Your task to perform on an android device: Show me popular videos on Youtube Image 0: 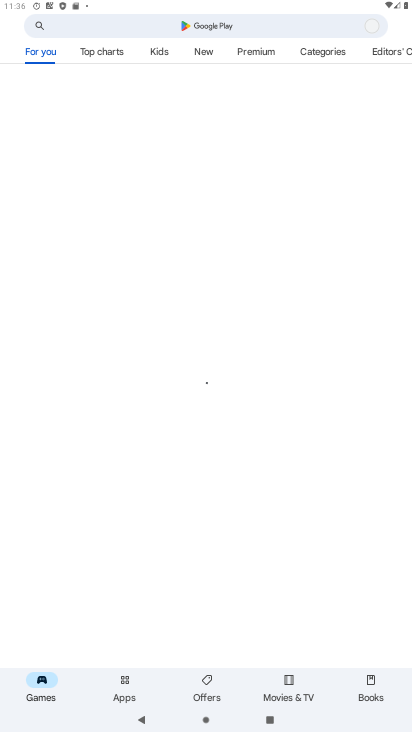
Step 0: press back button
Your task to perform on an android device: Show me popular videos on Youtube Image 1: 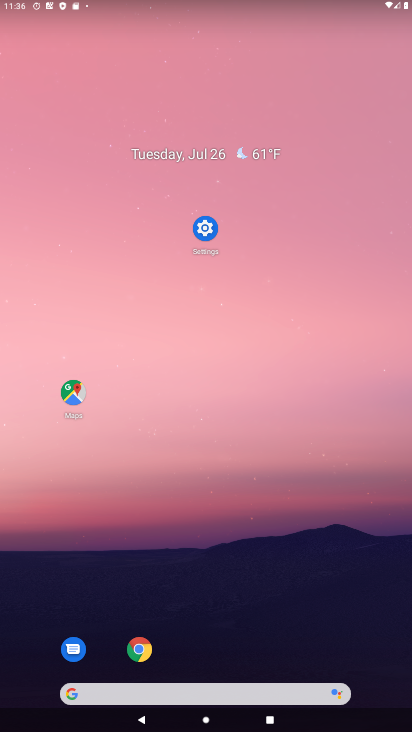
Step 1: drag from (171, 535) to (169, 4)
Your task to perform on an android device: Show me popular videos on Youtube Image 2: 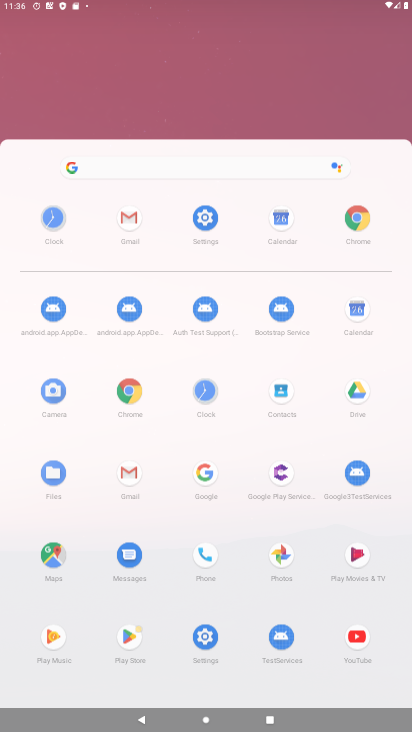
Step 2: drag from (235, 511) to (235, 148)
Your task to perform on an android device: Show me popular videos on Youtube Image 3: 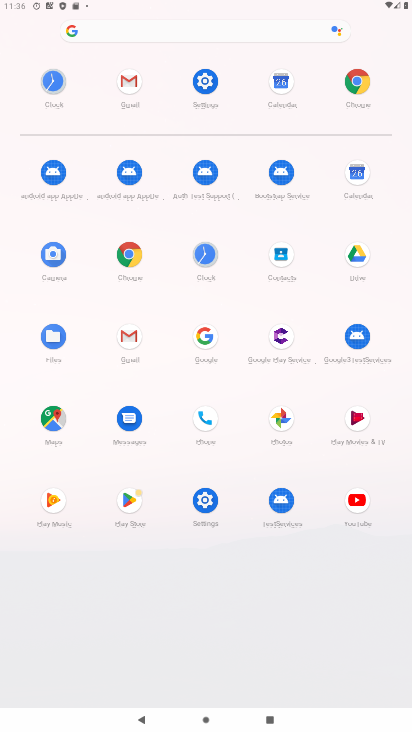
Step 3: drag from (248, 510) to (238, 123)
Your task to perform on an android device: Show me popular videos on Youtube Image 4: 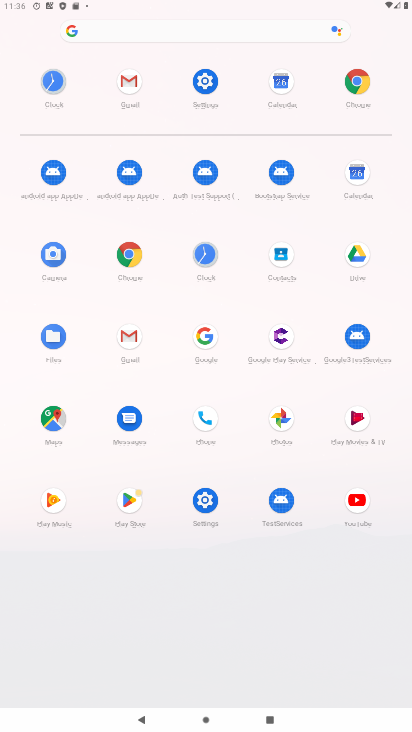
Step 4: click (343, 503)
Your task to perform on an android device: Show me popular videos on Youtube Image 5: 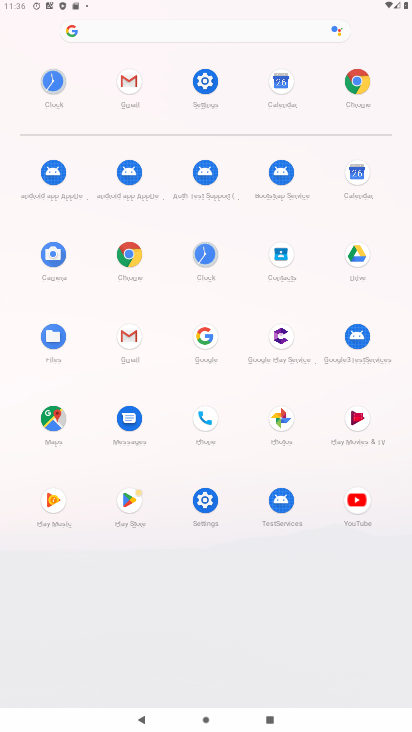
Step 5: click (349, 507)
Your task to perform on an android device: Show me popular videos on Youtube Image 6: 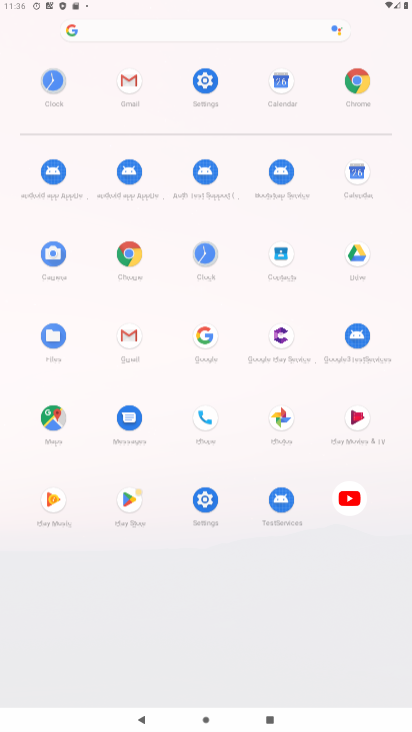
Step 6: click (350, 507)
Your task to perform on an android device: Show me popular videos on Youtube Image 7: 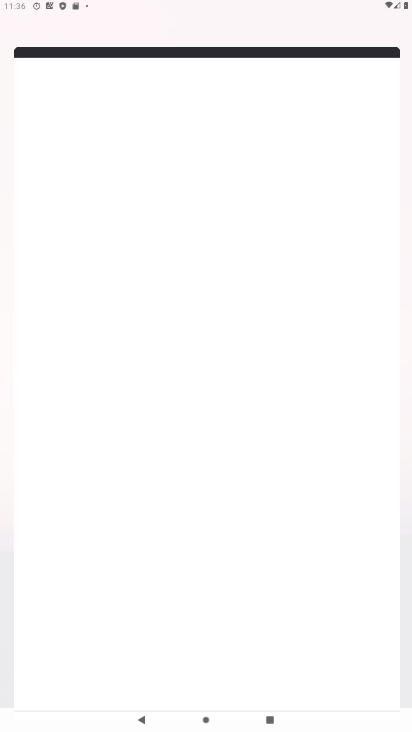
Step 7: click (350, 507)
Your task to perform on an android device: Show me popular videos on Youtube Image 8: 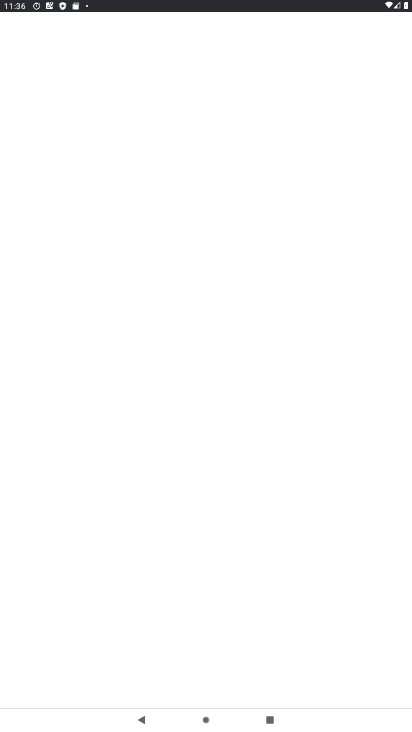
Step 8: click (350, 507)
Your task to perform on an android device: Show me popular videos on Youtube Image 9: 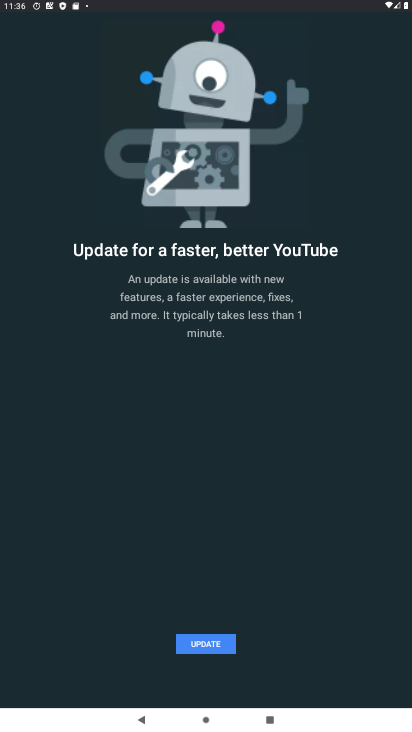
Step 9: click (225, 627)
Your task to perform on an android device: Show me popular videos on Youtube Image 10: 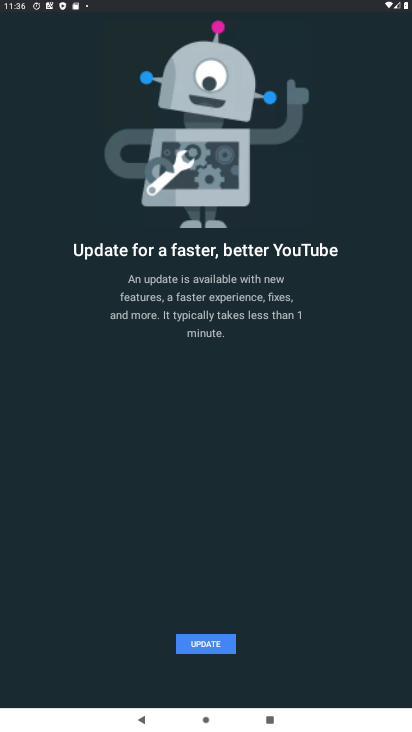
Step 10: click (211, 645)
Your task to perform on an android device: Show me popular videos on Youtube Image 11: 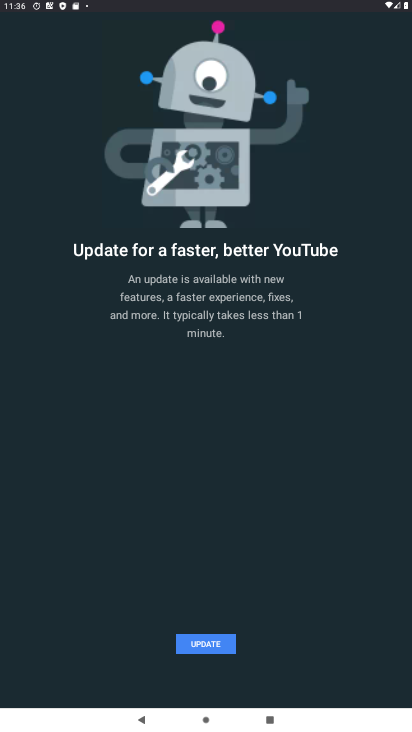
Step 11: click (212, 646)
Your task to perform on an android device: Show me popular videos on Youtube Image 12: 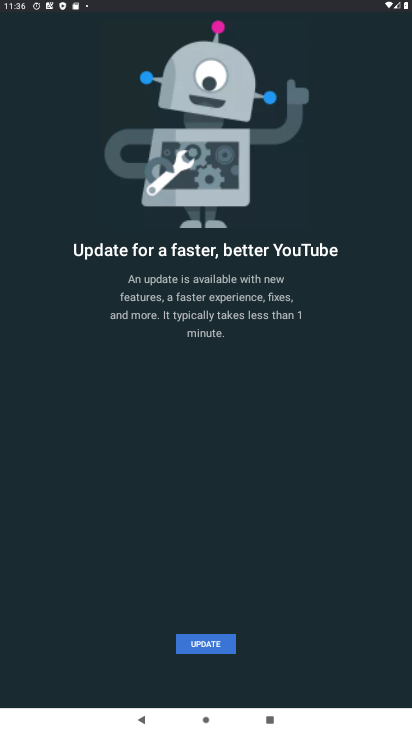
Step 12: click (211, 645)
Your task to perform on an android device: Show me popular videos on Youtube Image 13: 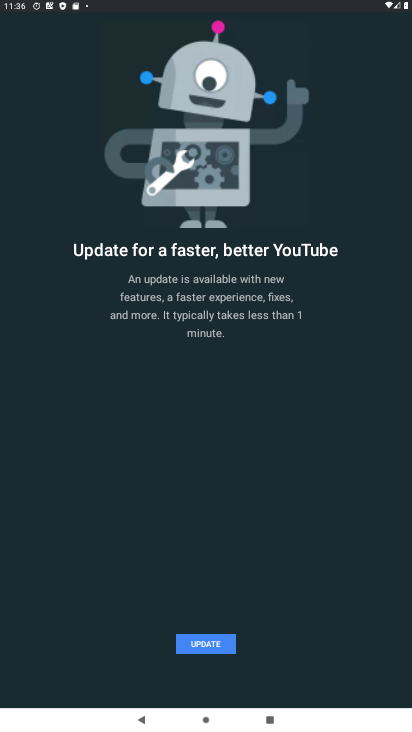
Step 13: click (212, 644)
Your task to perform on an android device: Show me popular videos on Youtube Image 14: 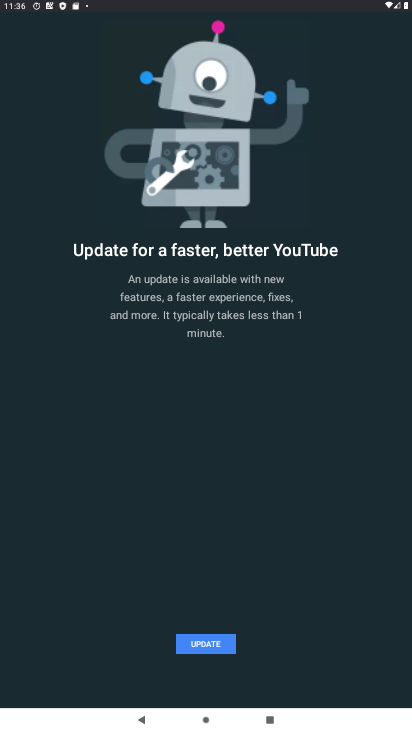
Step 14: click (212, 644)
Your task to perform on an android device: Show me popular videos on Youtube Image 15: 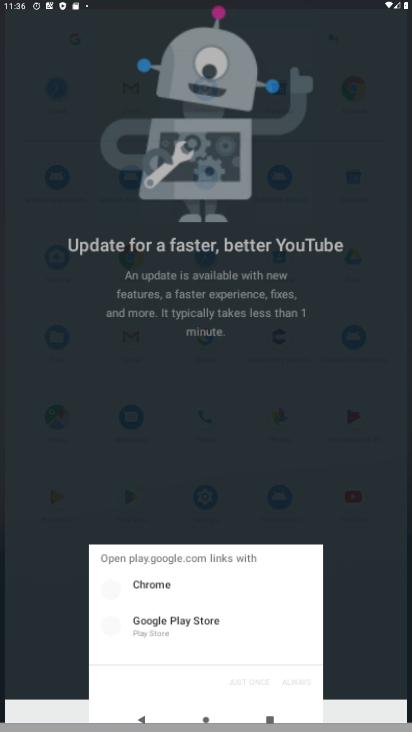
Step 15: click (212, 642)
Your task to perform on an android device: Show me popular videos on Youtube Image 16: 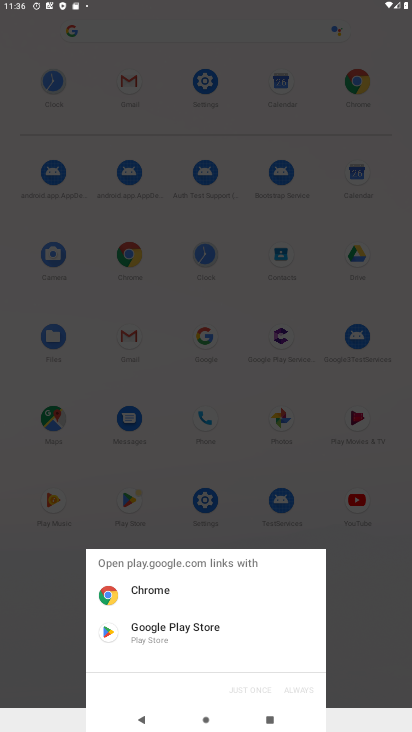
Step 16: click (215, 639)
Your task to perform on an android device: Show me popular videos on Youtube Image 17: 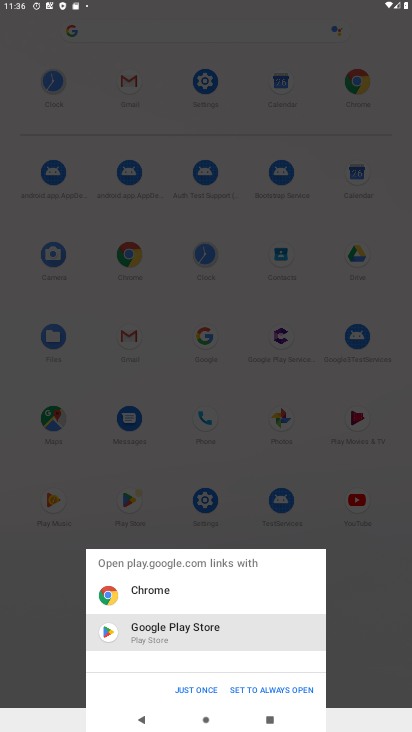
Step 17: click (163, 608)
Your task to perform on an android device: Show me popular videos on Youtube Image 18: 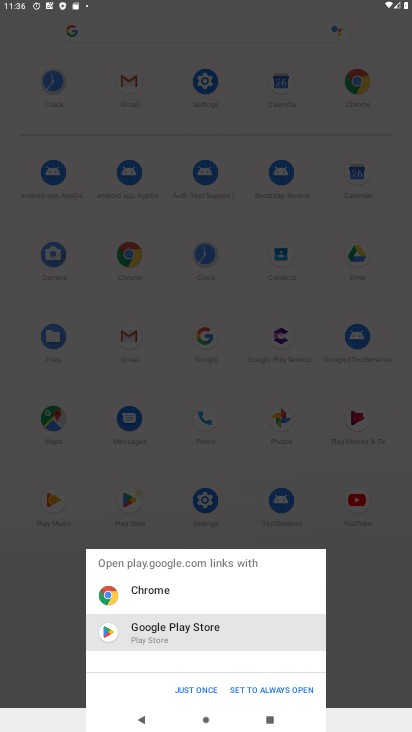
Step 18: click (165, 619)
Your task to perform on an android device: Show me popular videos on Youtube Image 19: 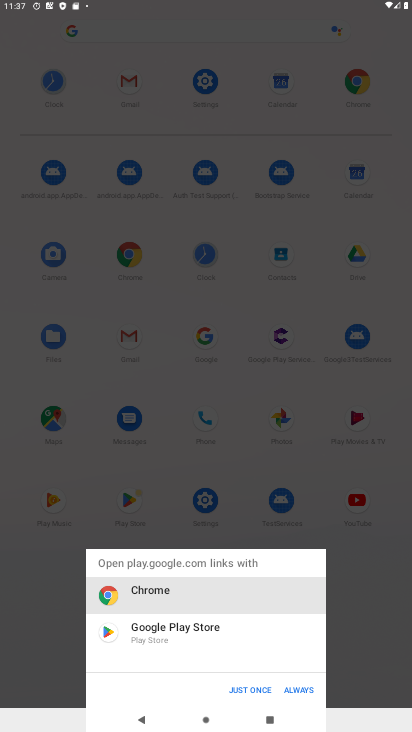
Step 19: click (180, 632)
Your task to perform on an android device: Show me popular videos on Youtube Image 20: 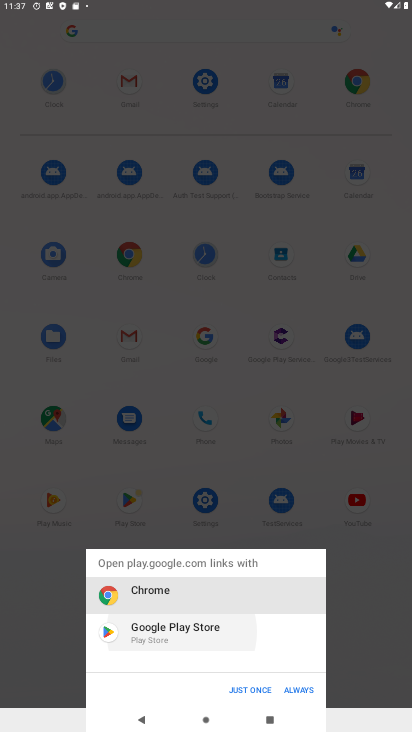
Step 20: click (179, 628)
Your task to perform on an android device: Show me popular videos on Youtube Image 21: 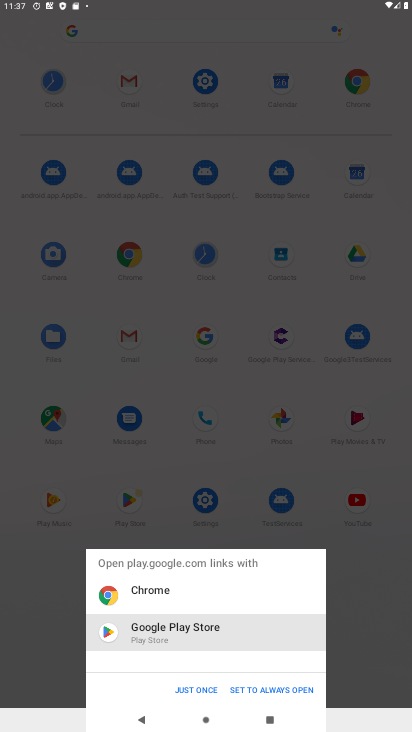
Step 21: click (202, 630)
Your task to perform on an android device: Show me popular videos on Youtube Image 22: 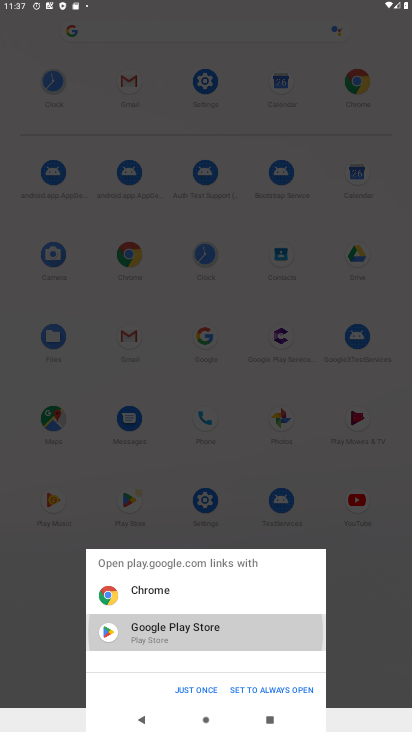
Step 22: click (198, 620)
Your task to perform on an android device: Show me popular videos on Youtube Image 23: 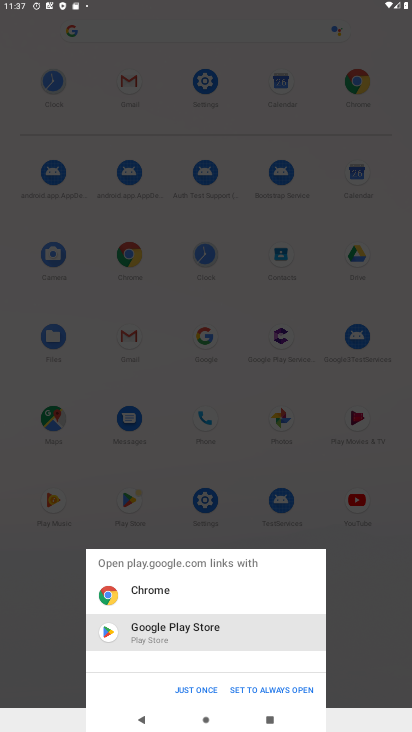
Step 23: click (192, 615)
Your task to perform on an android device: Show me popular videos on Youtube Image 24: 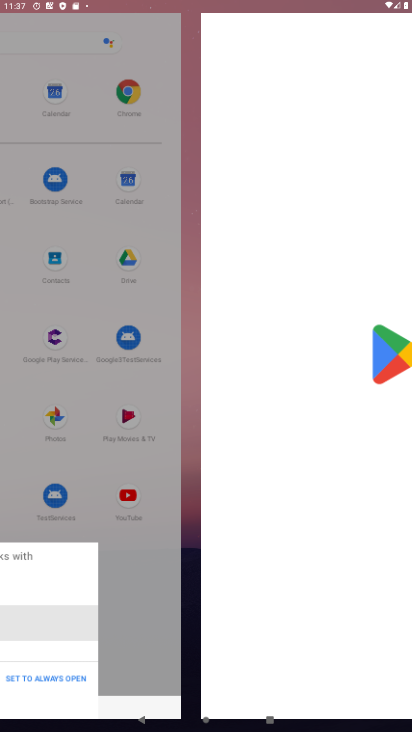
Step 24: click (190, 607)
Your task to perform on an android device: Show me popular videos on Youtube Image 25: 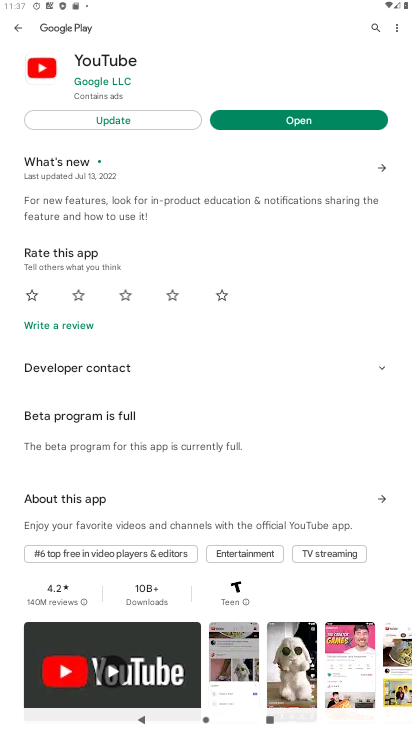
Step 25: click (139, 111)
Your task to perform on an android device: Show me popular videos on Youtube Image 26: 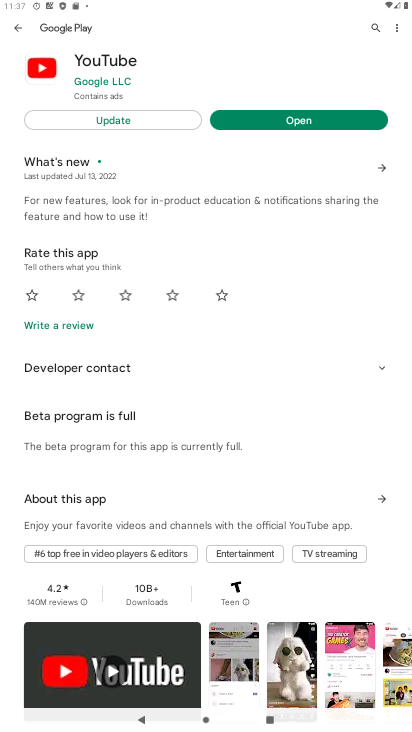
Step 26: click (139, 111)
Your task to perform on an android device: Show me popular videos on Youtube Image 27: 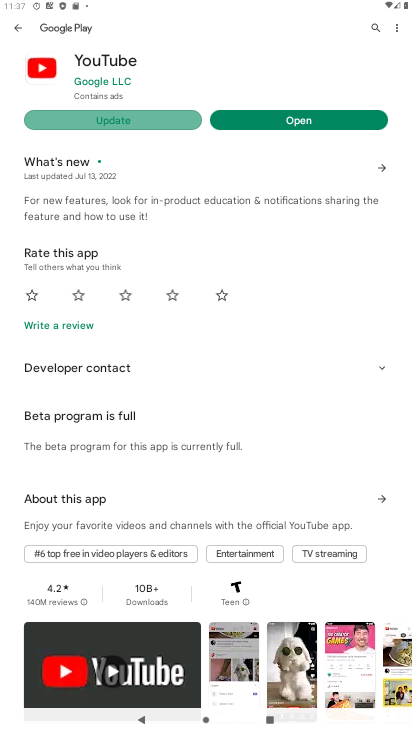
Step 27: click (139, 111)
Your task to perform on an android device: Show me popular videos on Youtube Image 28: 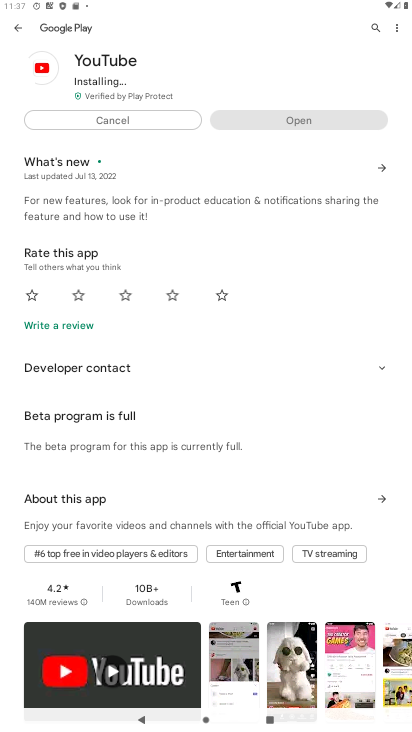
Step 28: click (167, 114)
Your task to perform on an android device: Show me popular videos on Youtube Image 29: 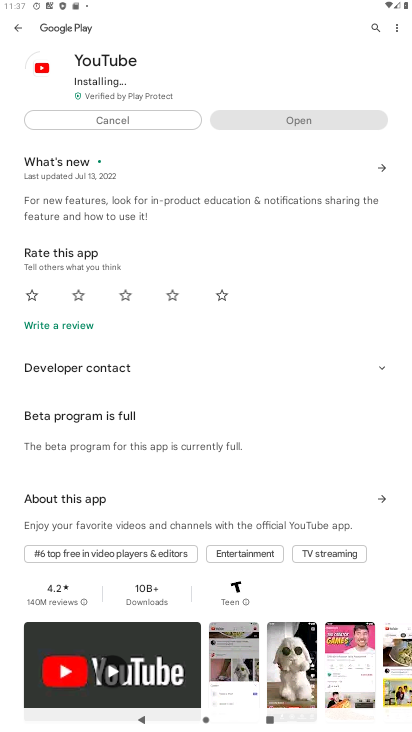
Step 29: click (267, 124)
Your task to perform on an android device: Show me popular videos on Youtube Image 30: 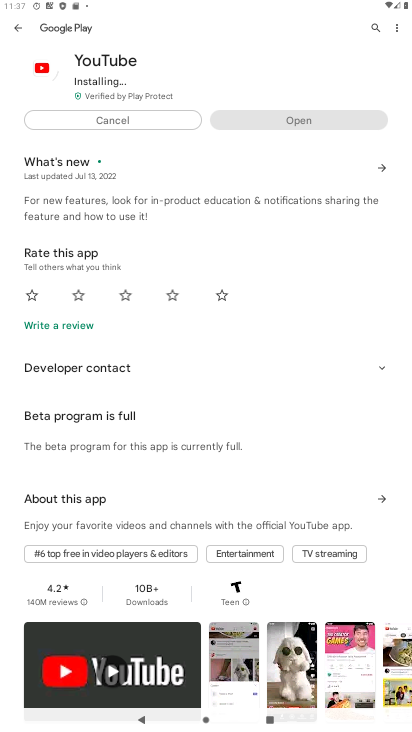
Step 30: click (269, 120)
Your task to perform on an android device: Show me popular videos on Youtube Image 31: 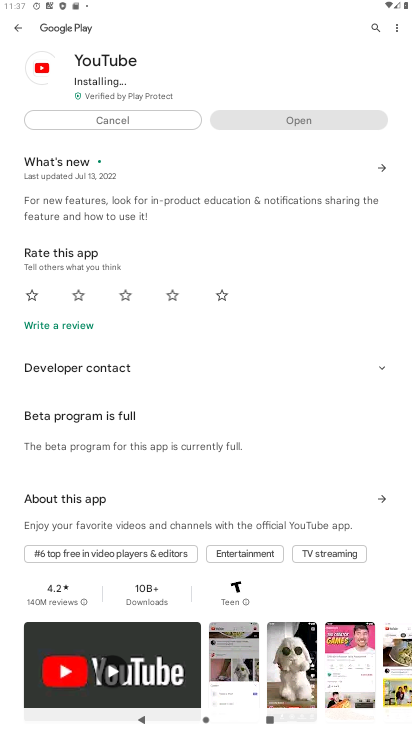
Step 31: click (269, 120)
Your task to perform on an android device: Show me popular videos on Youtube Image 32: 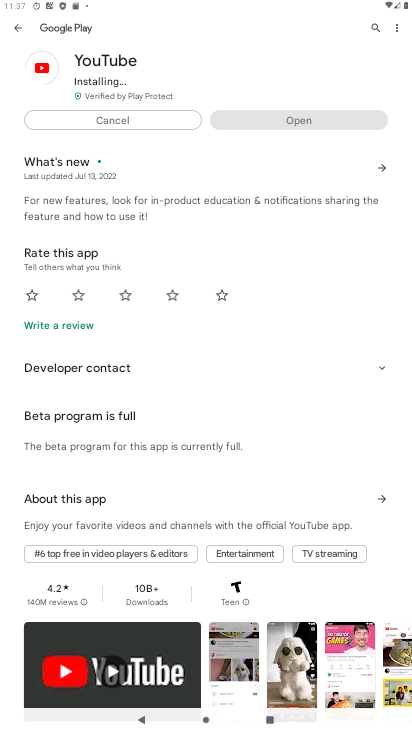
Step 32: click (271, 118)
Your task to perform on an android device: Show me popular videos on Youtube Image 33: 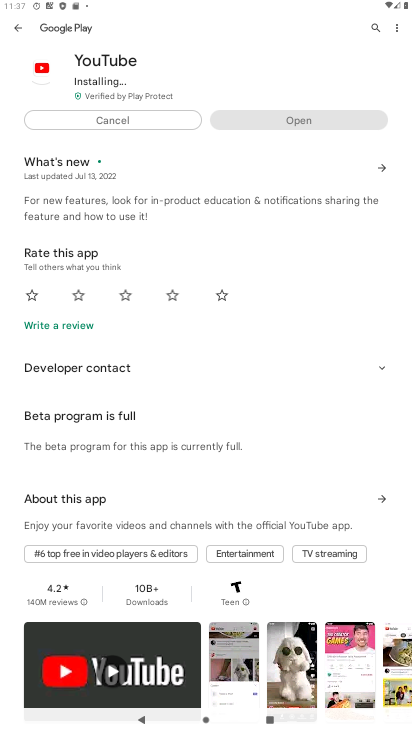
Step 33: click (272, 118)
Your task to perform on an android device: Show me popular videos on Youtube Image 34: 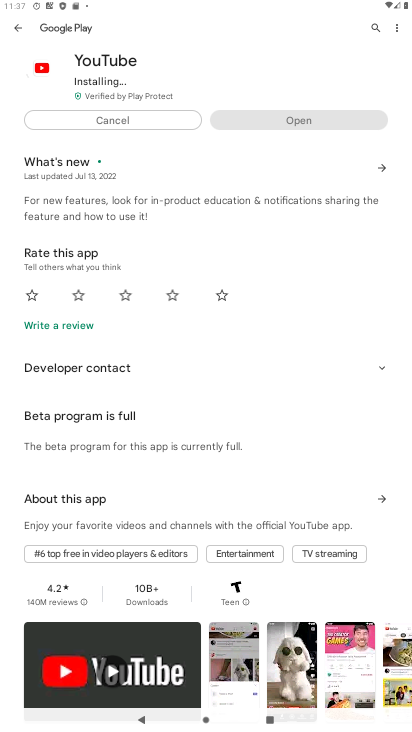
Step 34: click (273, 118)
Your task to perform on an android device: Show me popular videos on Youtube Image 35: 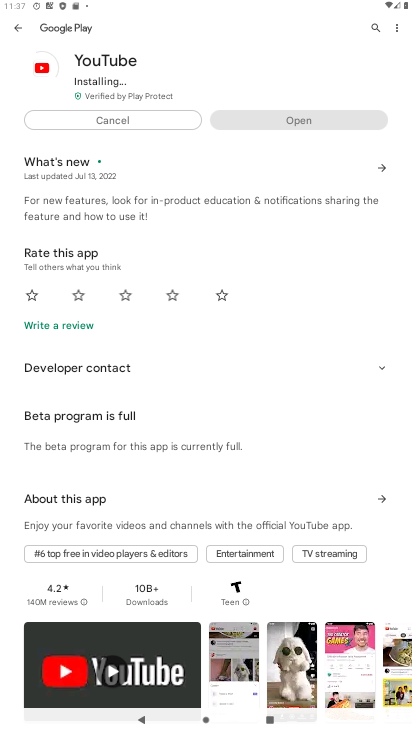
Step 35: click (275, 119)
Your task to perform on an android device: Show me popular videos on Youtube Image 36: 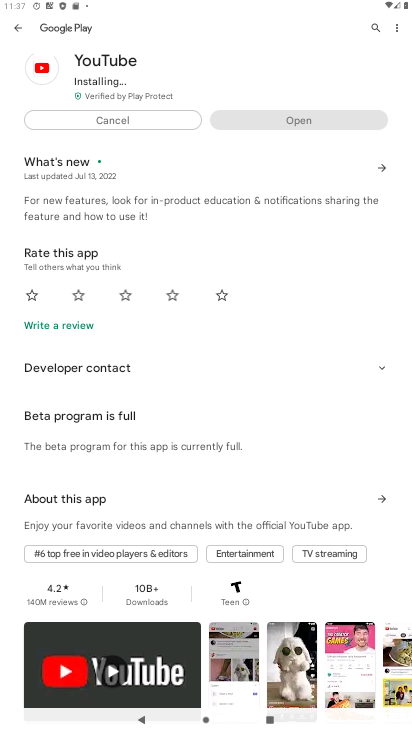
Step 36: click (276, 119)
Your task to perform on an android device: Show me popular videos on Youtube Image 37: 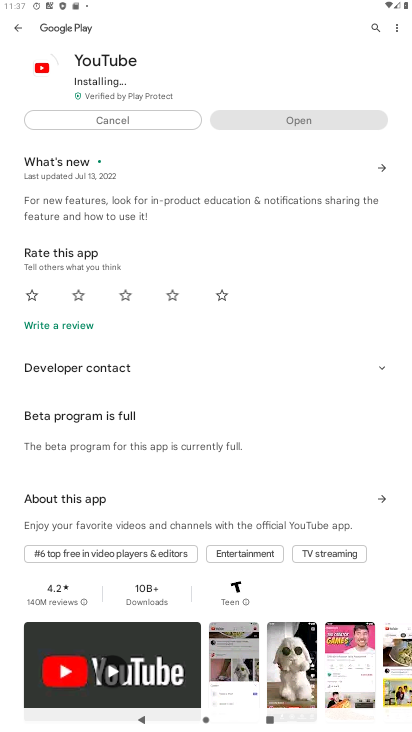
Step 37: click (280, 120)
Your task to perform on an android device: Show me popular videos on Youtube Image 38: 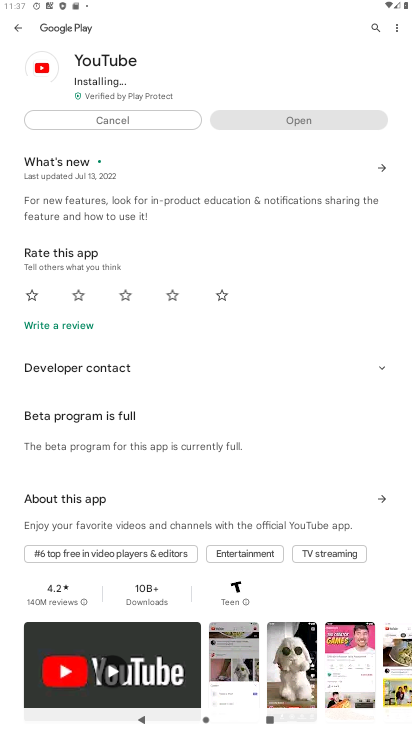
Step 38: click (281, 110)
Your task to perform on an android device: Show me popular videos on Youtube Image 39: 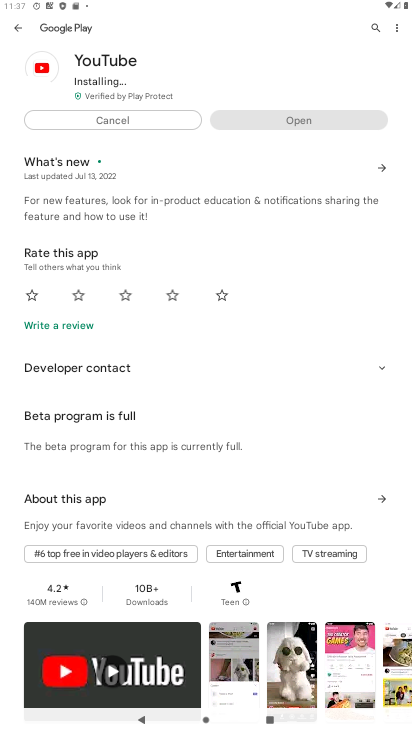
Step 39: click (279, 111)
Your task to perform on an android device: Show me popular videos on Youtube Image 40: 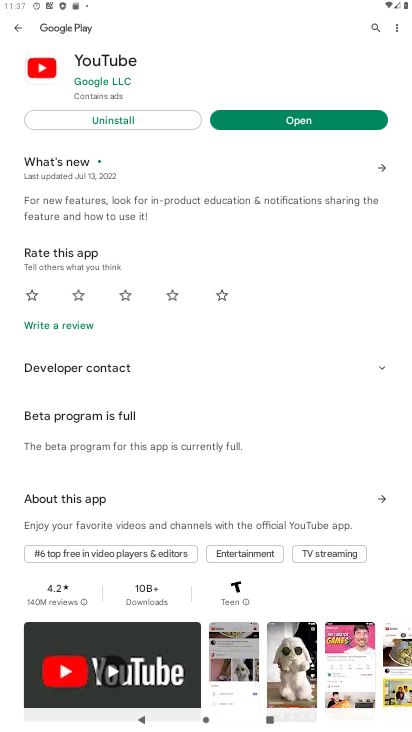
Step 40: task complete